Your task to perform on an android device: change keyboard looks Image 0: 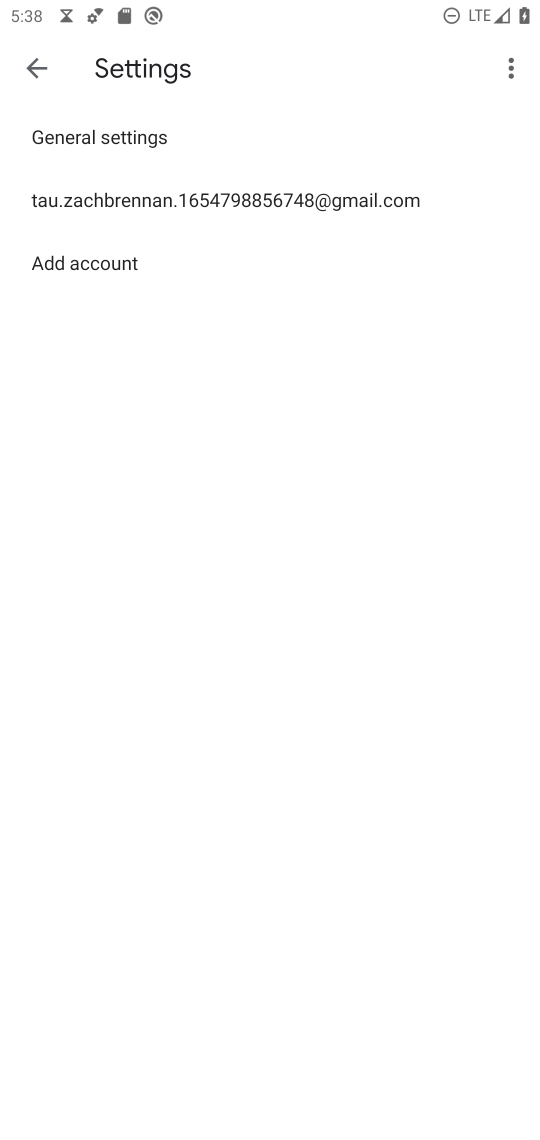
Step 0: press home button
Your task to perform on an android device: change keyboard looks Image 1: 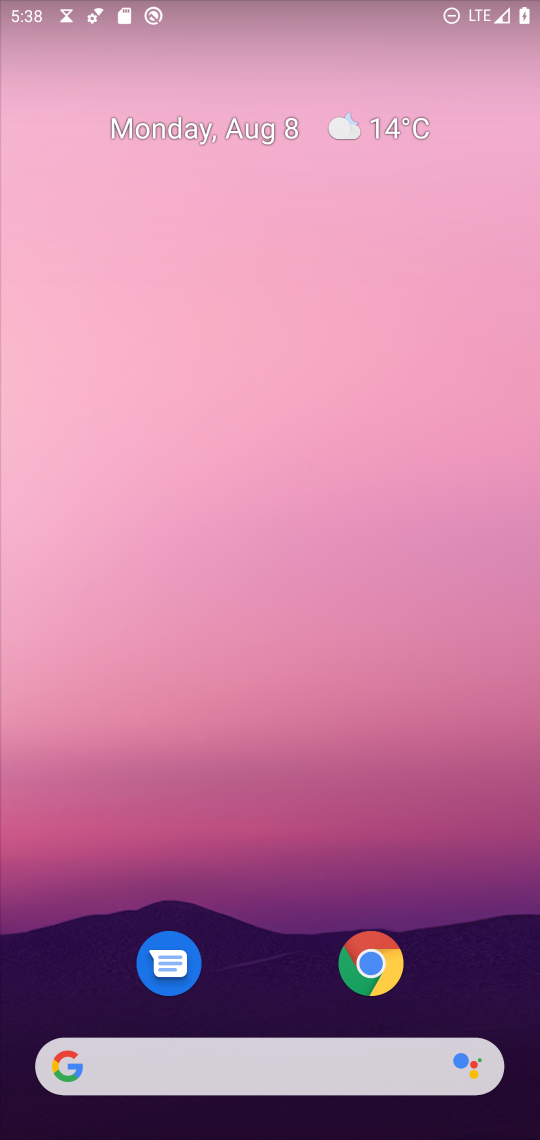
Step 1: drag from (306, 830) to (266, 218)
Your task to perform on an android device: change keyboard looks Image 2: 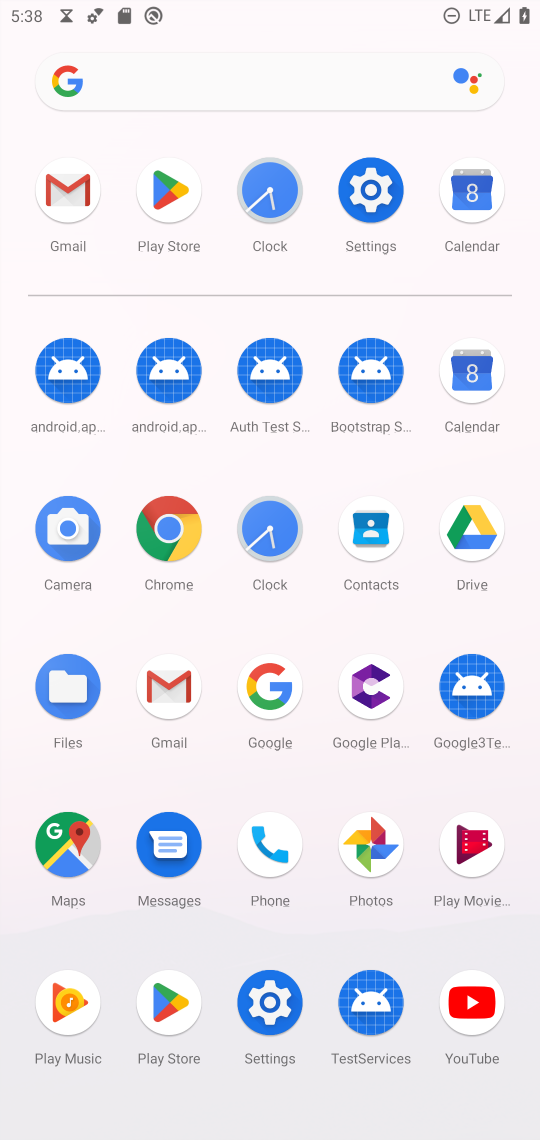
Step 2: click (363, 211)
Your task to perform on an android device: change keyboard looks Image 3: 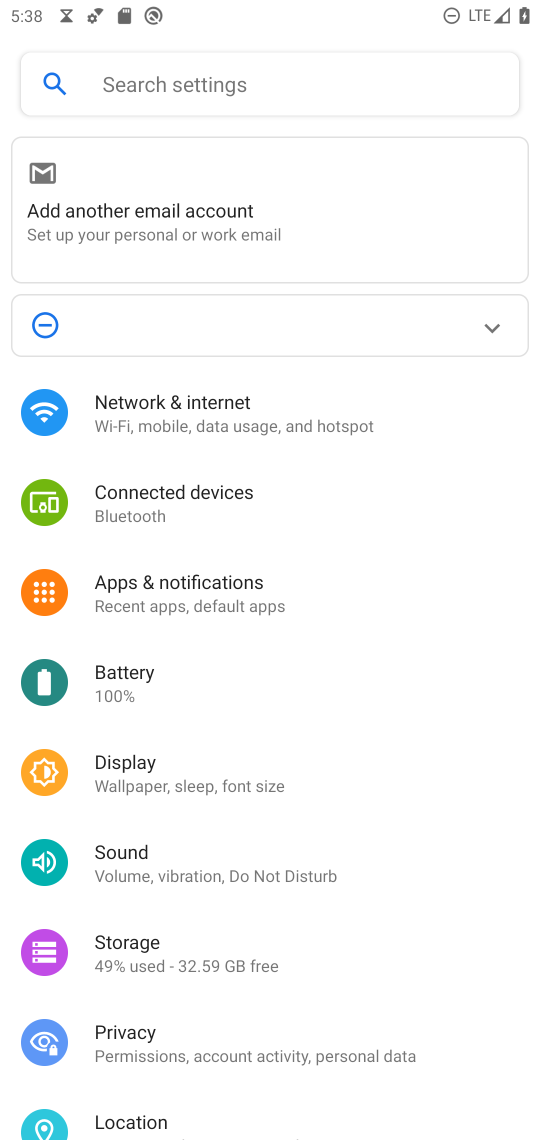
Step 3: drag from (189, 921) to (180, 396)
Your task to perform on an android device: change keyboard looks Image 4: 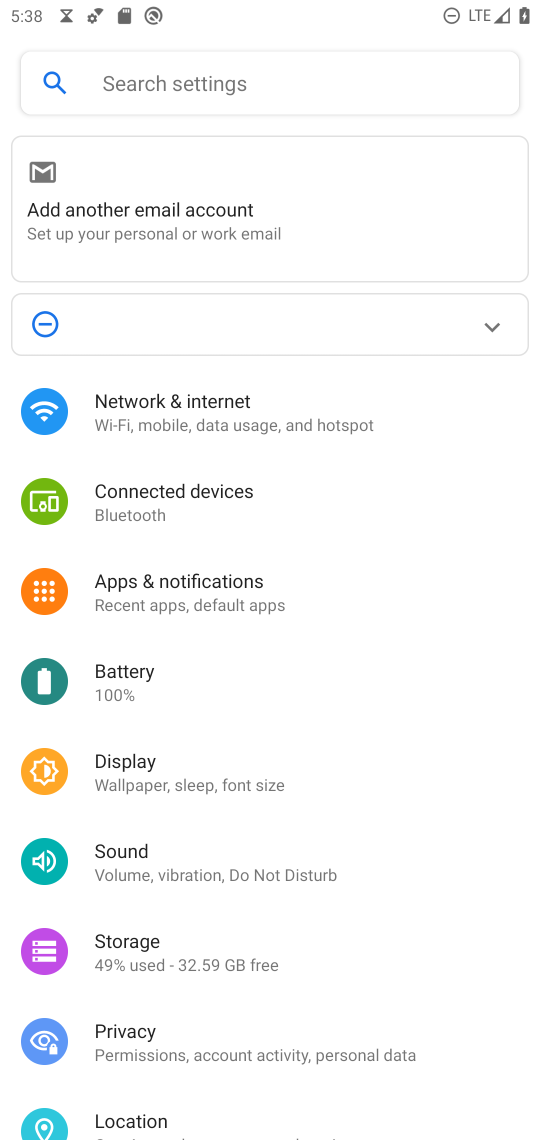
Step 4: drag from (296, 979) to (220, 659)
Your task to perform on an android device: change keyboard looks Image 5: 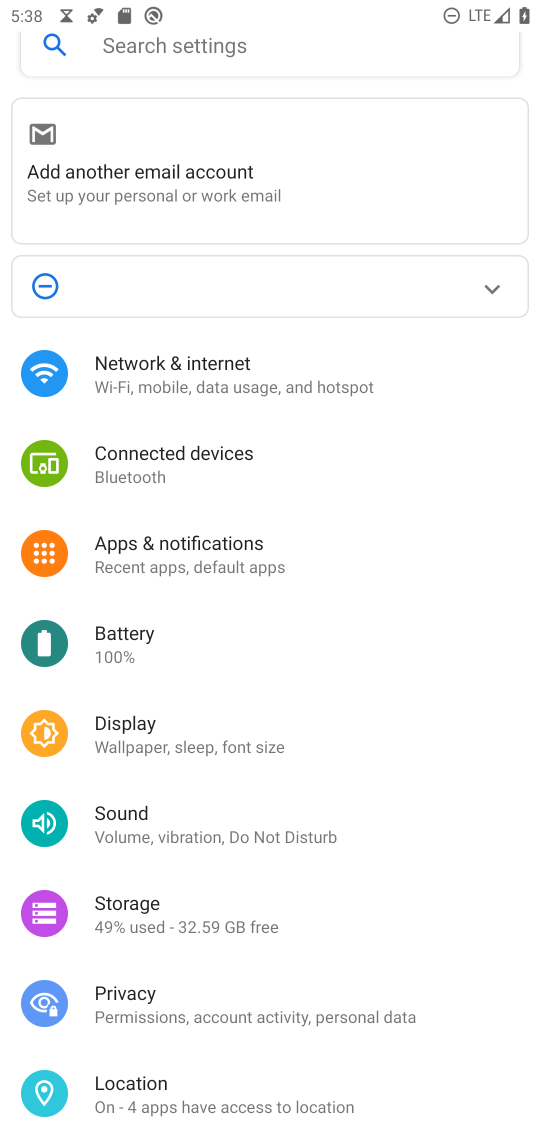
Step 5: drag from (272, 1112) to (332, 104)
Your task to perform on an android device: change keyboard looks Image 6: 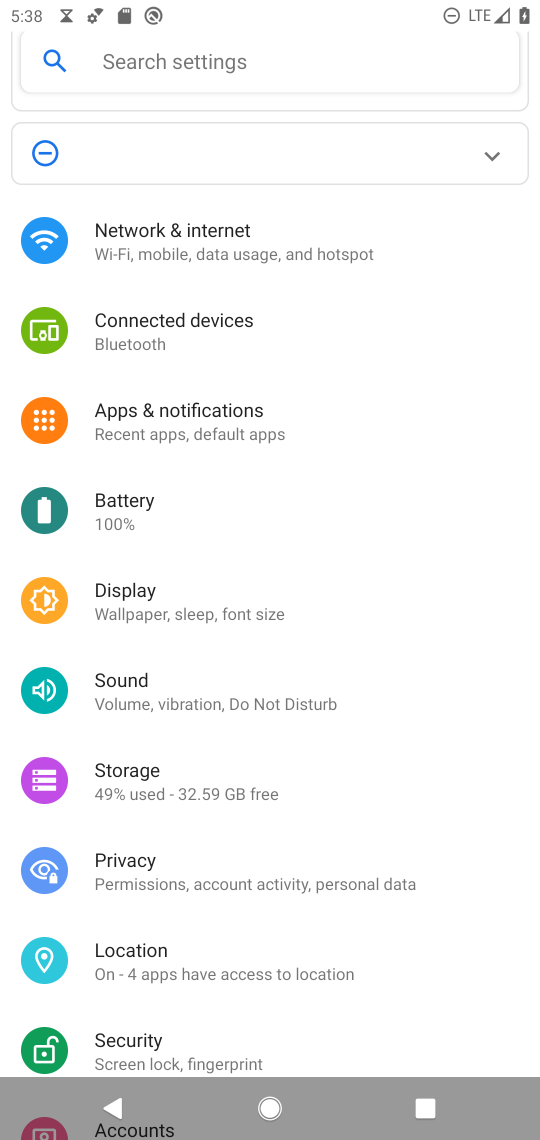
Step 6: drag from (346, 793) to (390, 38)
Your task to perform on an android device: change keyboard looks Image 7: 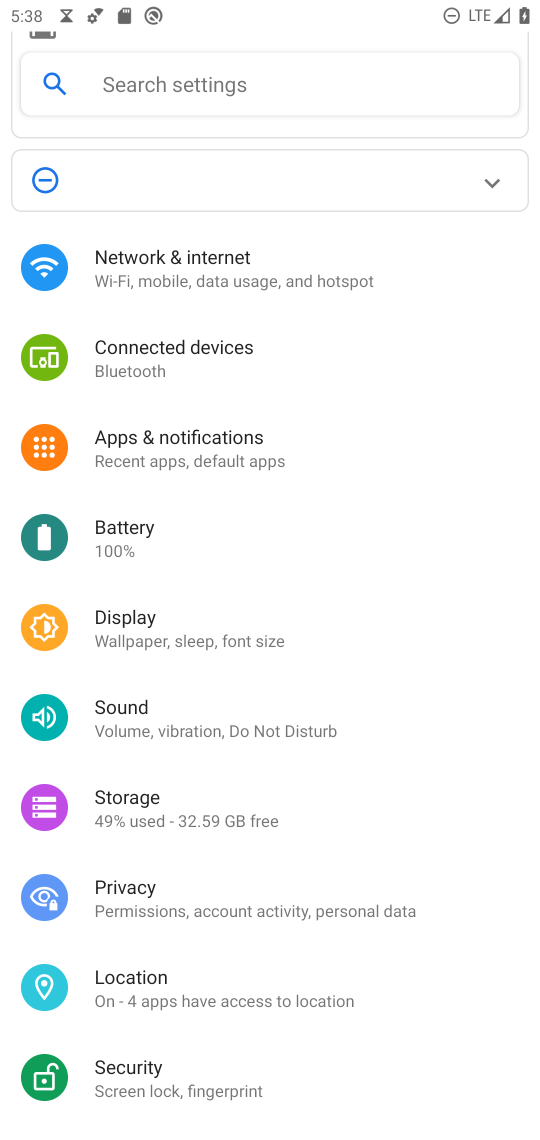
Step 7: drag from (324, 887) to (269, 300)
Your task to perform on an android device: change keyboard looks Image 8: 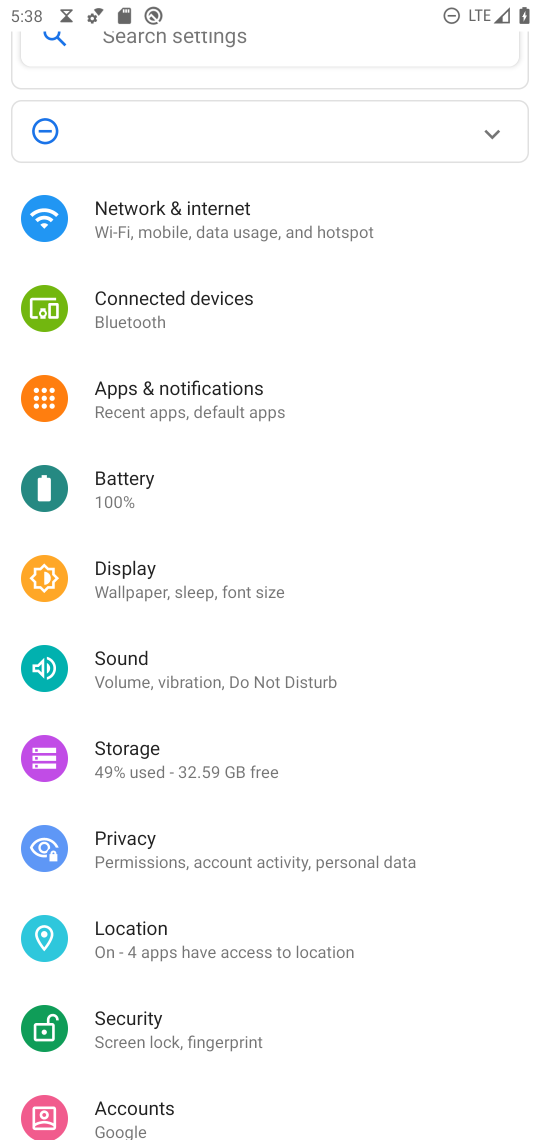
Step 8: drag from (215, 1096) to (151, 333)
Your task to perform on an android device: change keyboard looks Image 9: 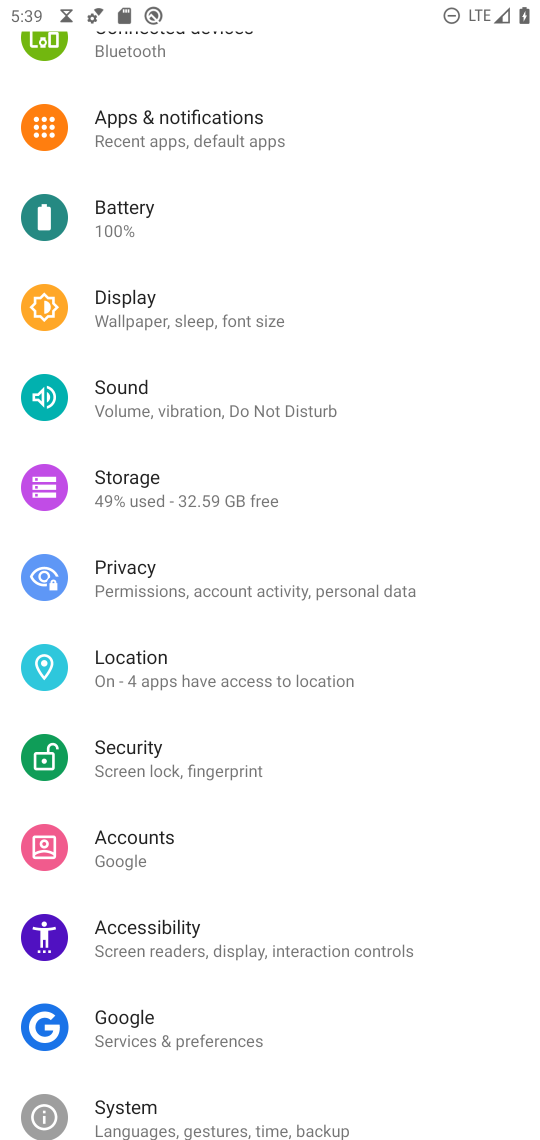
Step 9: click (221, 1110)
Your task to perform on an android device: change keyboard looks Image 10: 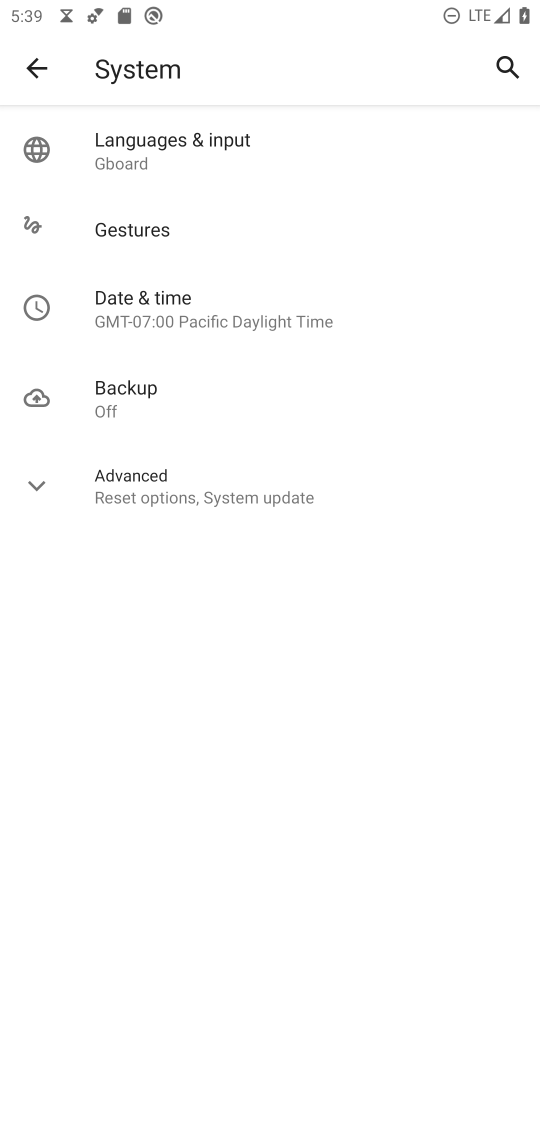
Step 10: click (208, 152)
Your task to perform on an android device: change keyboard looks Image 11: 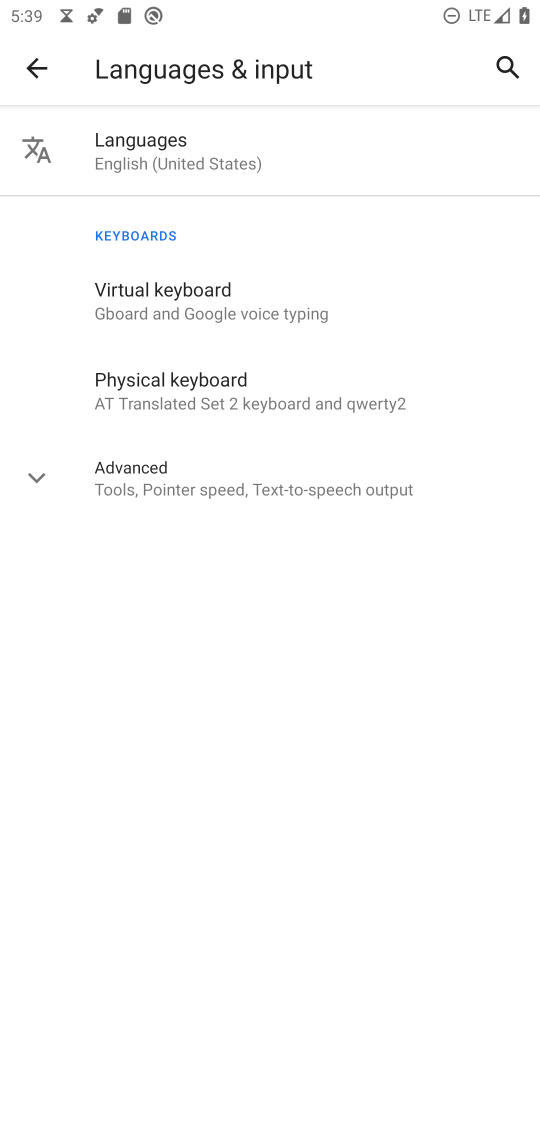
Step 11: click (166, 295)
Your task to perform on an android device: change keyboard looks Image 12: 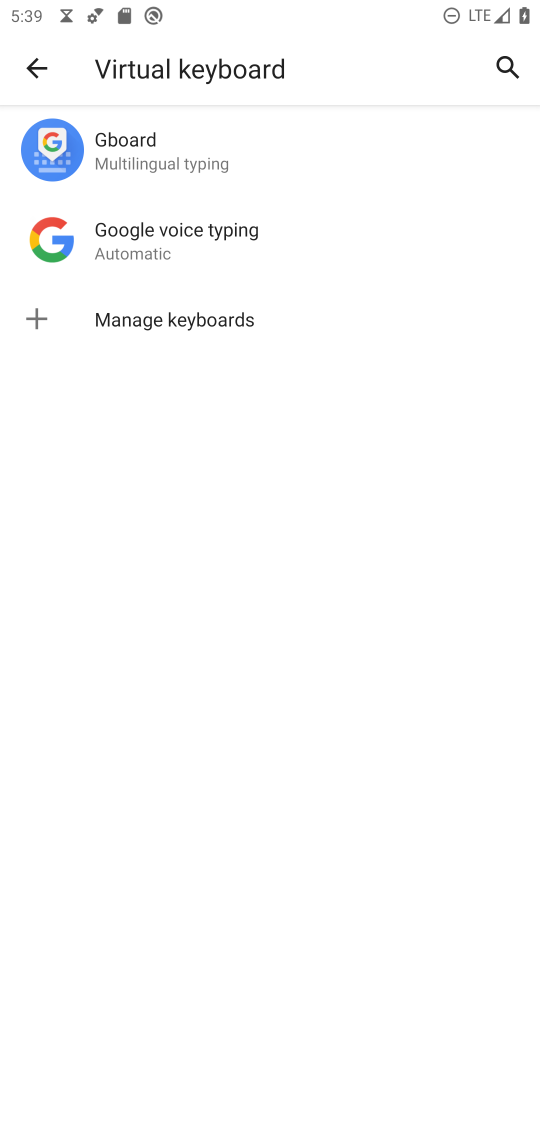
Step 12: click (188, 147)
Your task to perform on an android device: change keyboard looks Image 13: 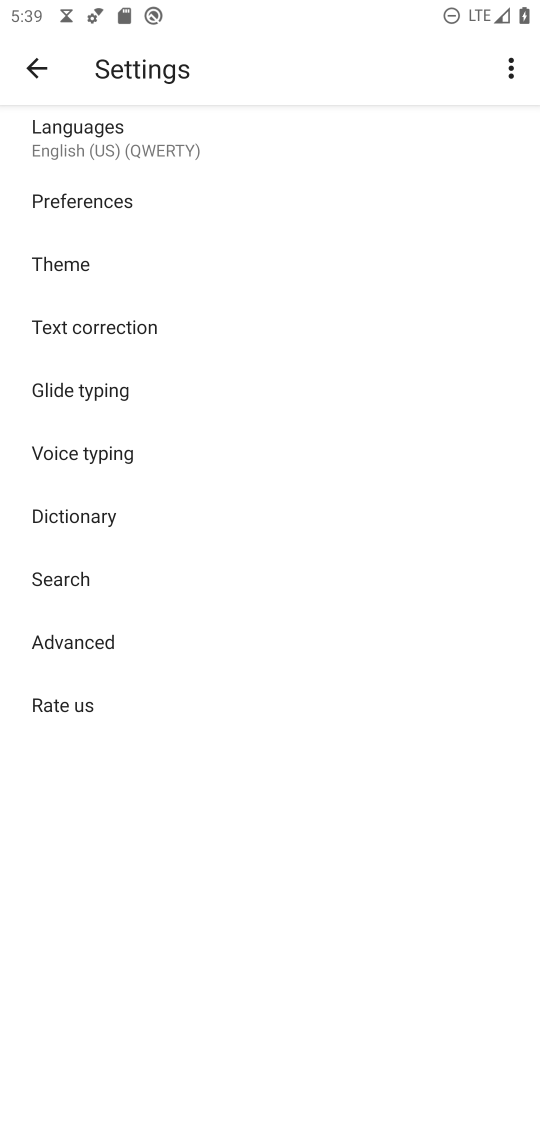
Step 13: click (101, 263)
Your task to perform on an android device: change keyboard looks Image 14: 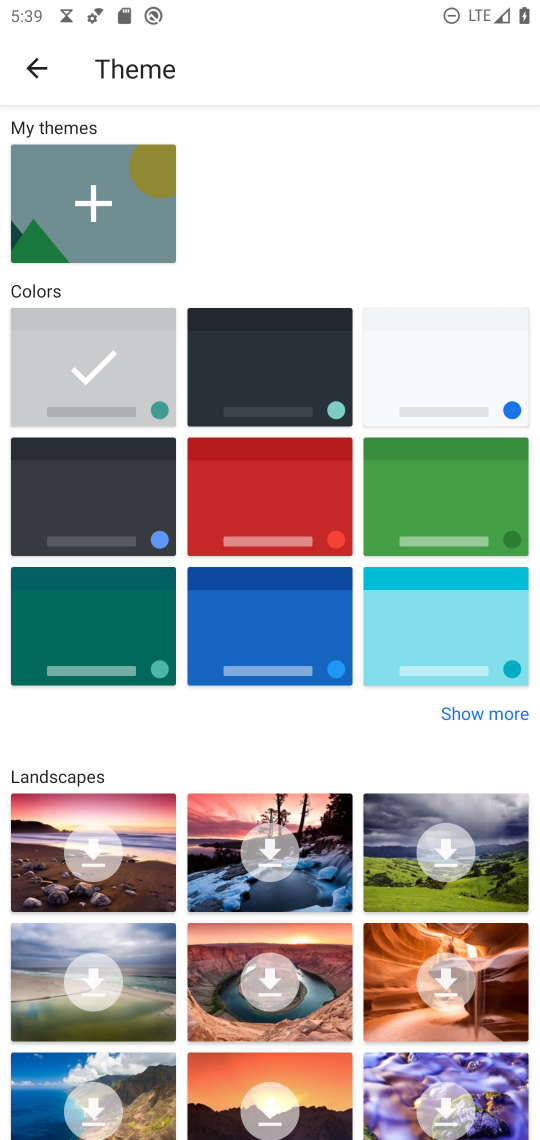
Step 14: click (267, 639)
Your task to perform on an android device: change keyboard looks Image 15: 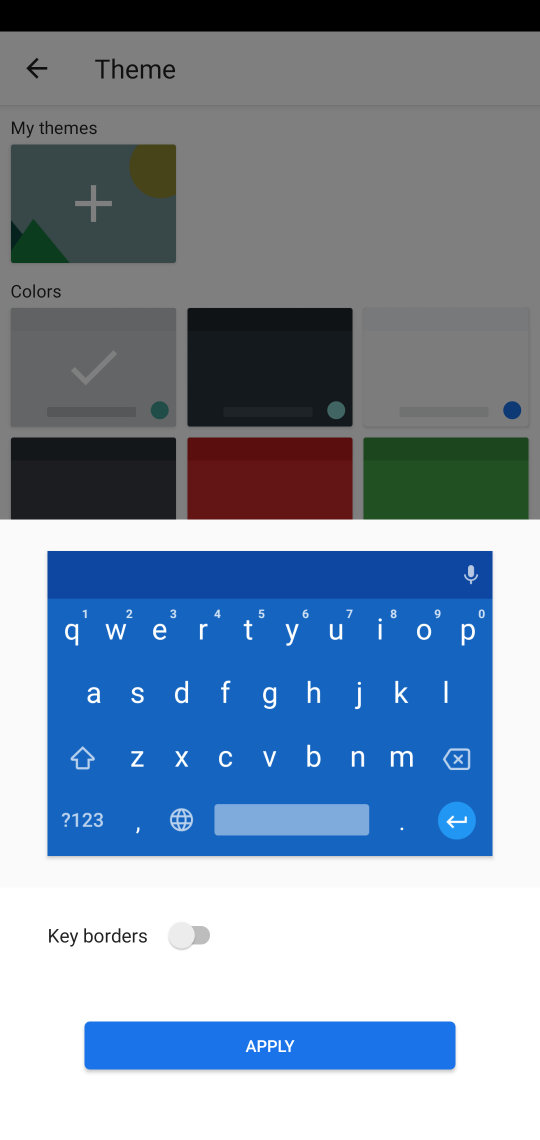
Step 15: click (320, 1070)
Your task to perform on an android device: change keyboard looks Image 16: 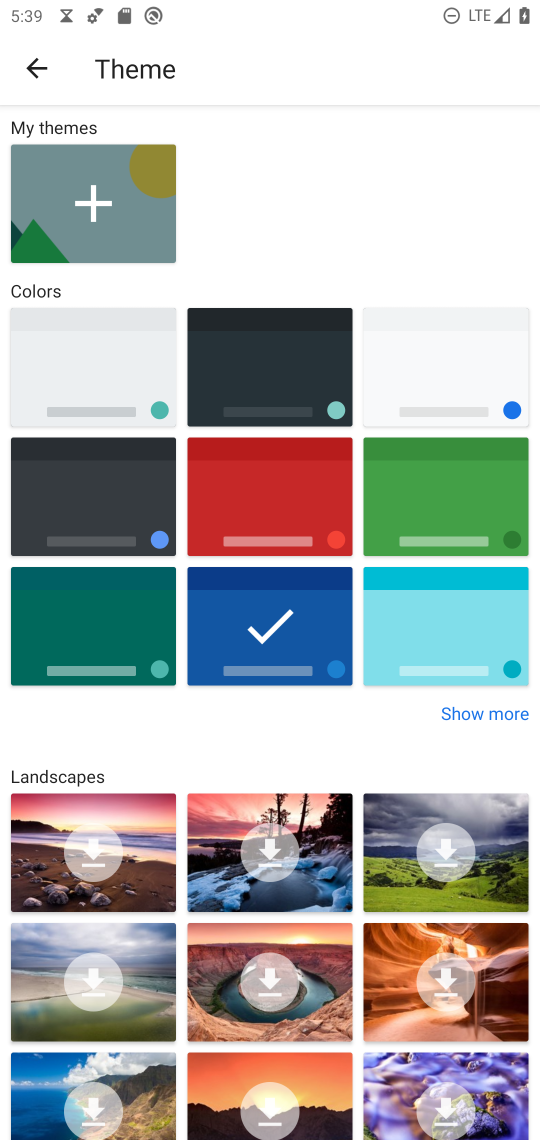
Step 16: task complete